Your task to perform on an android device: turn on sleep mode Image 0: 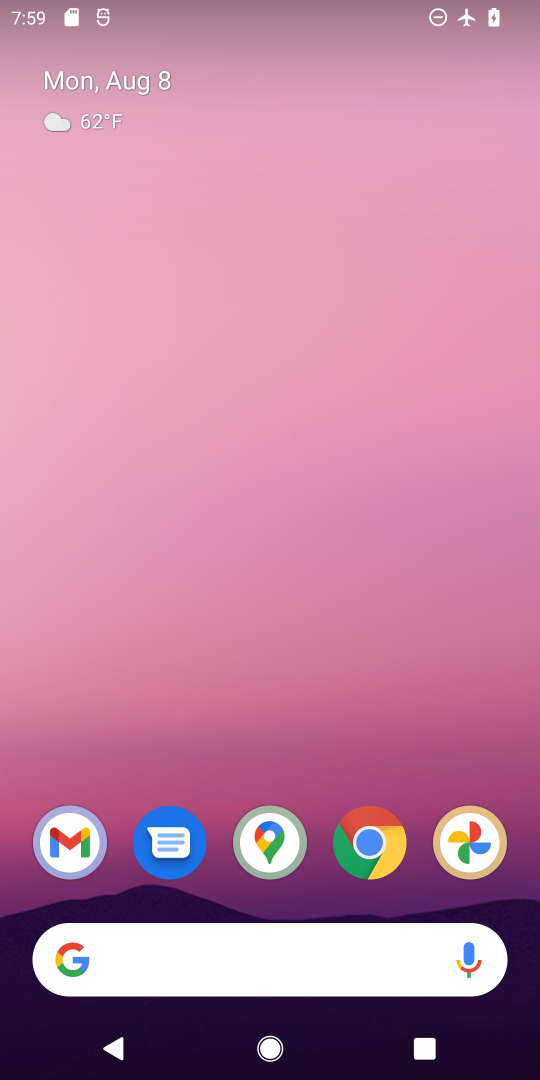
Step 0: drag from (341, 853) to (241, 198)
Your task to perform on an android device: turn on sleep mode Image 1: 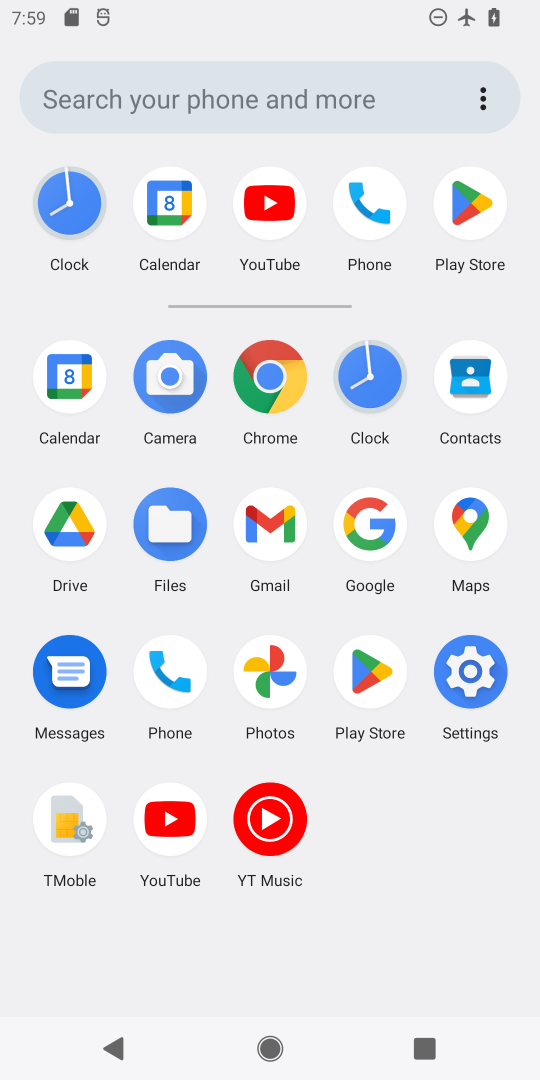
Step 1: click (421, 691)
Your task to perform on an android device: turn on sleep mode Image 2: 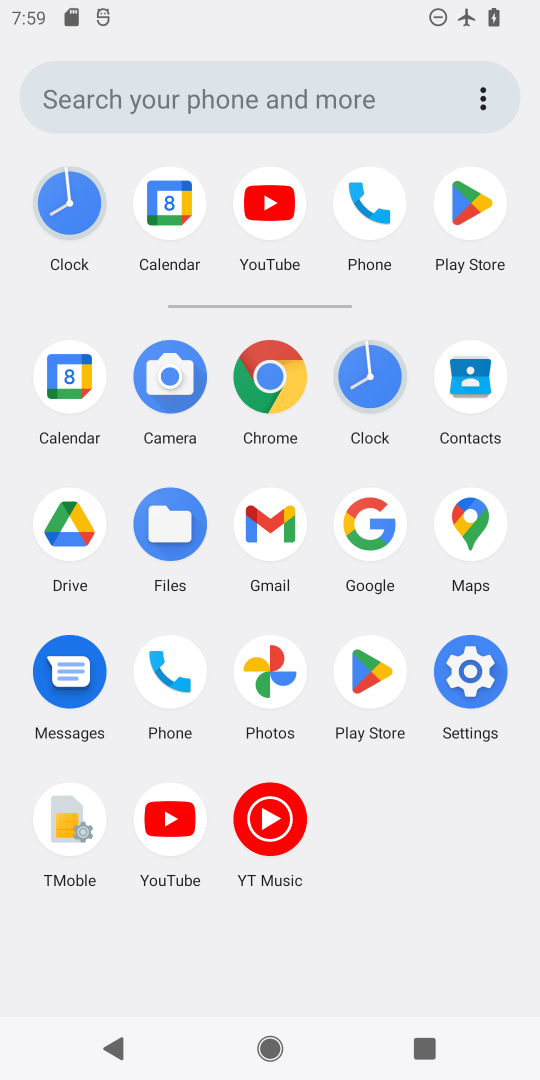
Step 2: click (463, 668)
Your task to perform on an android device: turn on sleep mode Image 3: 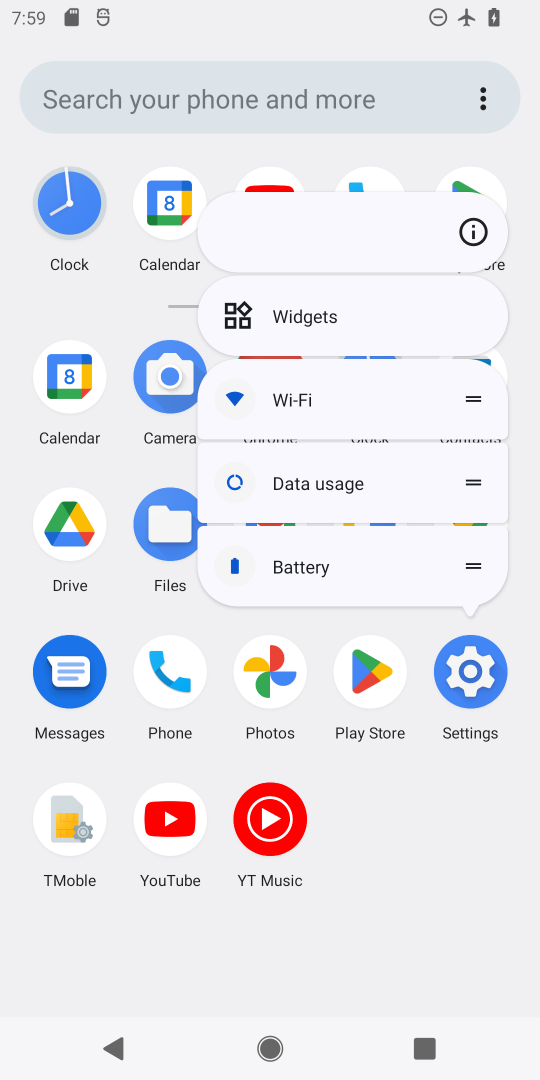
Step 3: click (488, 684)
Your task to perform on an android device: turn on sleep mode Image 4: 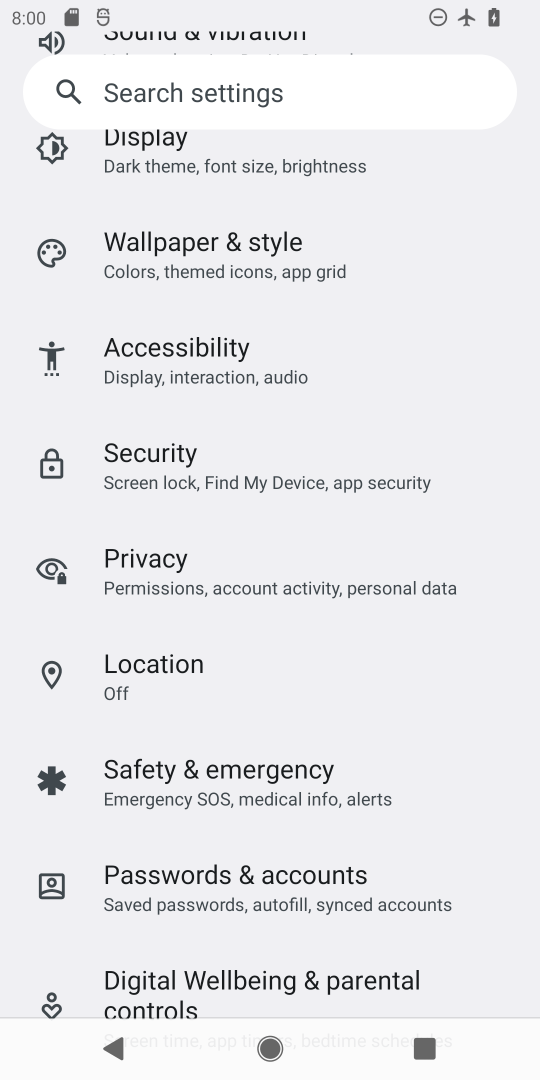
Step 4: task complete